Your task to perform on an android device: Go to Maps Image 0: 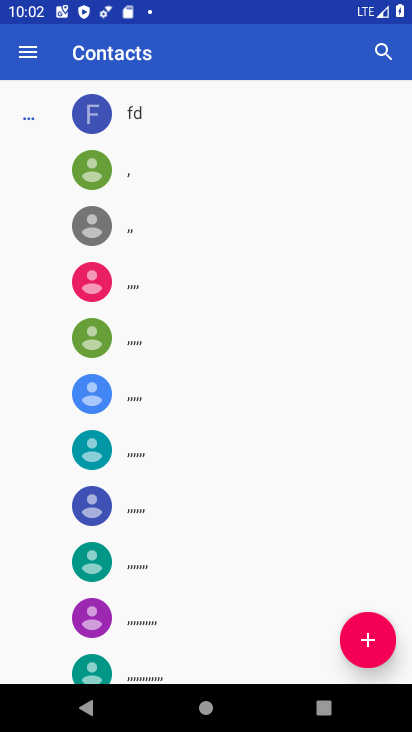
Step 0: press home button
Your task to perform on an android device: Go to Maps Image 1: 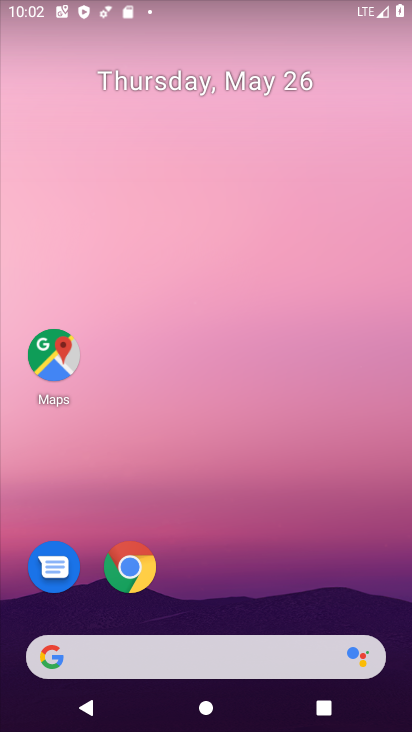
Step 1: click (59, 367)
Your task to perform on an android device: Go to Maps Image 2: 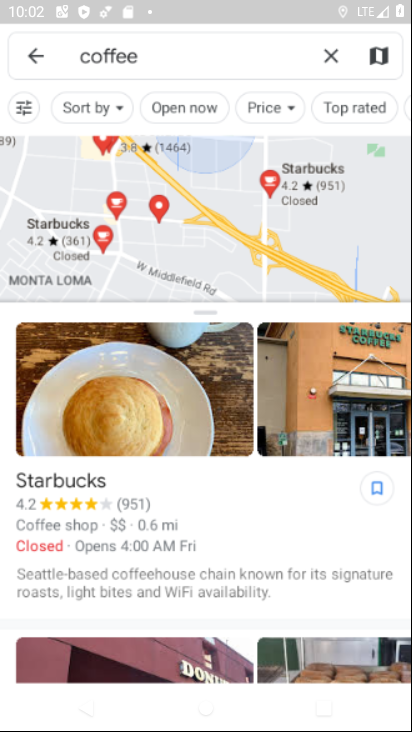
Step 2: task complete